Your task to perform on an android device: Open Google Chrome and open the bookmarks view Image 0: 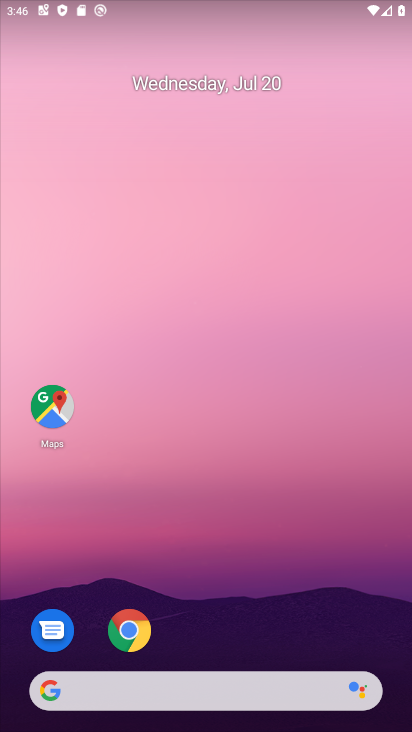
Step 0: click (139, 631)
Your task to perform on an android device: Open Google Chrome and open the bookmarks view Image 1: 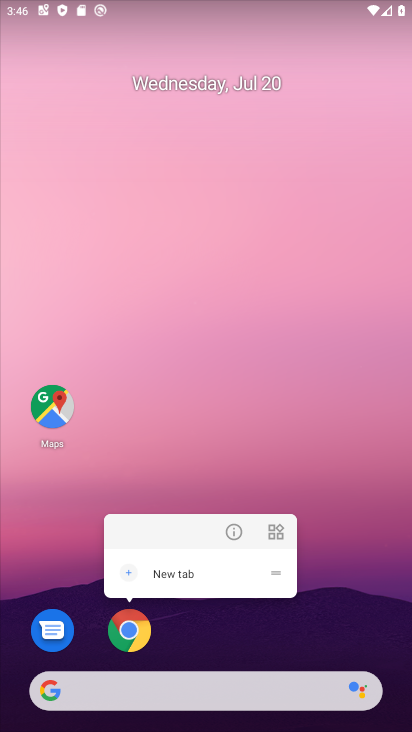
Step 1: click (126, 638)
Your task to perform on an android device: Open Google Chrome and open the bookmarks view Image 2: 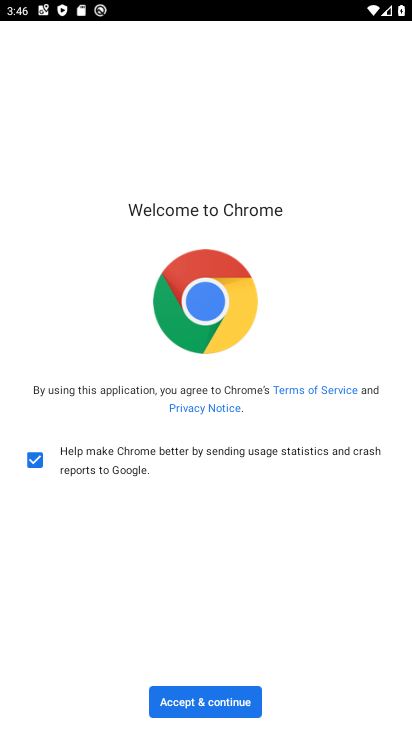
Step 2: click (184, 710)
Your task to perform on an android device: Open Google Chrome and open the bookmarks view Image 3: 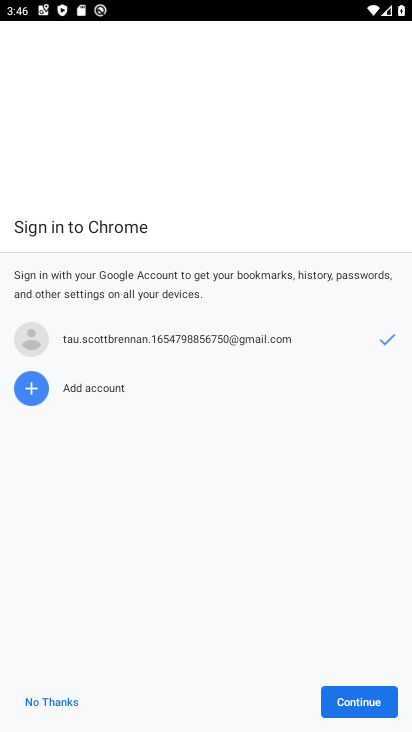
Step 3: click (353, 689)
Your task to perform on an android device: Open Google Chrome and open the bookmarks view Image 4: 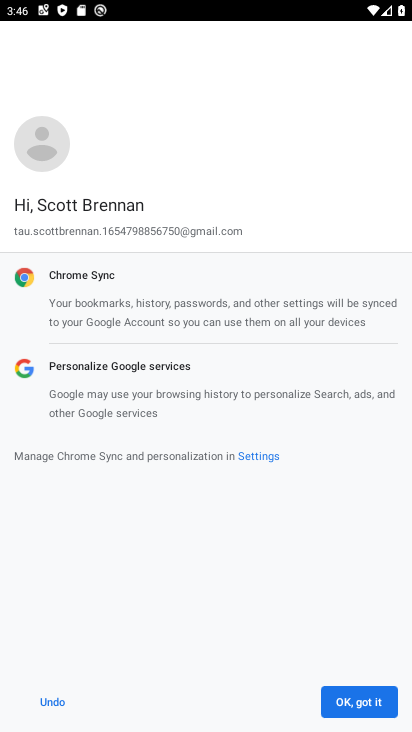
Step 4: click (375, 703)
Your task to perform on an android device: Open Google Chrome and open the bookmarks view Image 5: 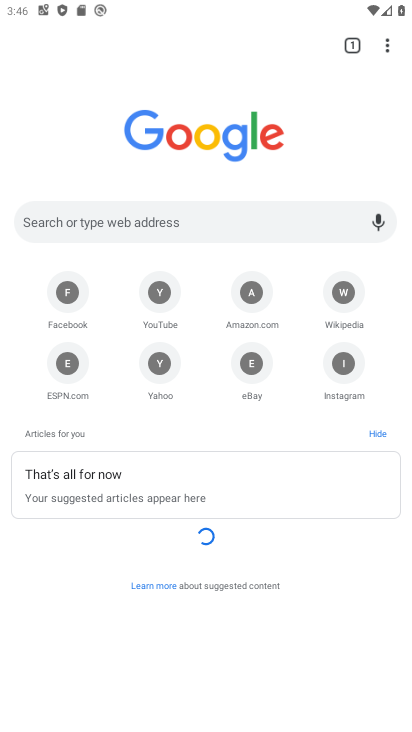
Step 5: click (393, 37)
Your task to perform on an android device: Open Google Chrome and open the bookmarks view Image 6: 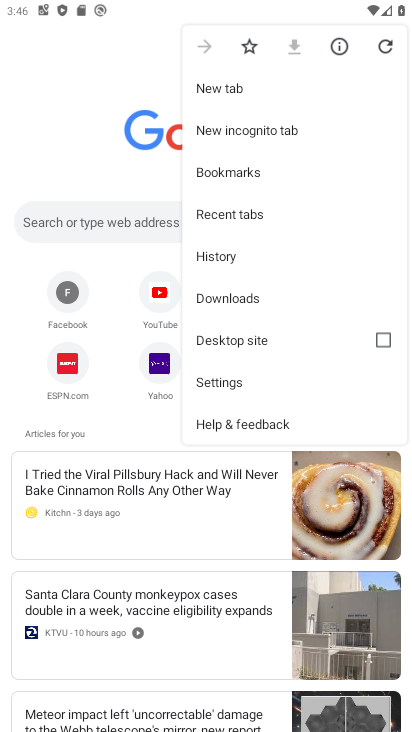
Step 6: click (210, 165)
Your task to perform on an android device: Open Google Chrome and open the bookmarks view Image 7: 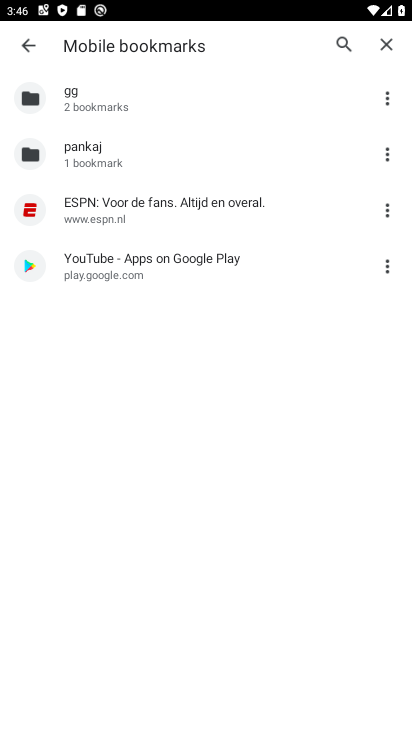
Step 7: task complete